Your task to perform on an android device: turn on airplane mode Image 0: 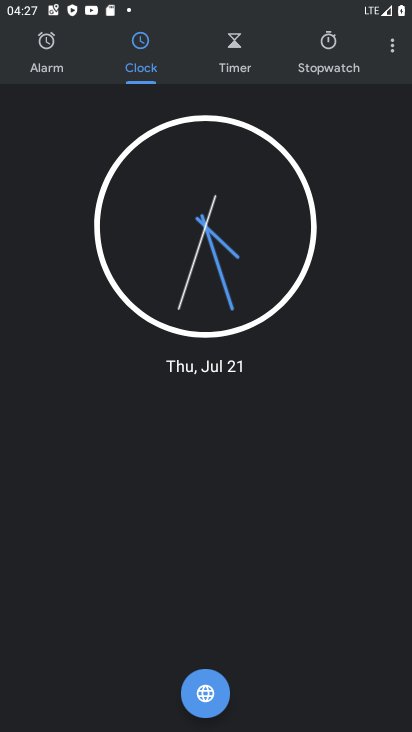
Step 0: drag from (249, 2) to (54, 499)
Your task to perform on an android device: turn on airplane mode Image 1: 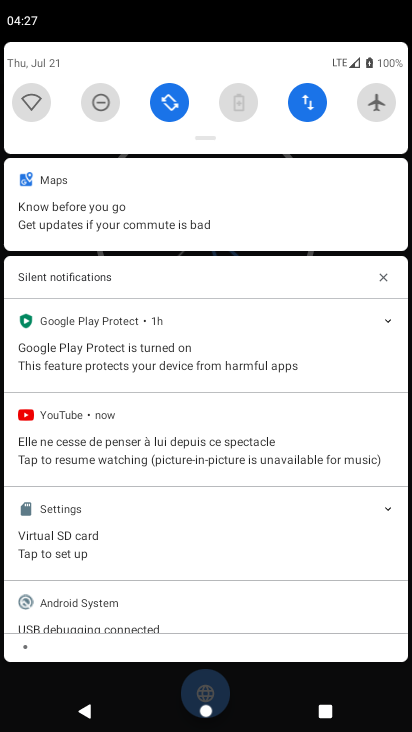
Step 1: click (385, 112)
Your task to perform on an android device: turn on airplane mode Image 2: 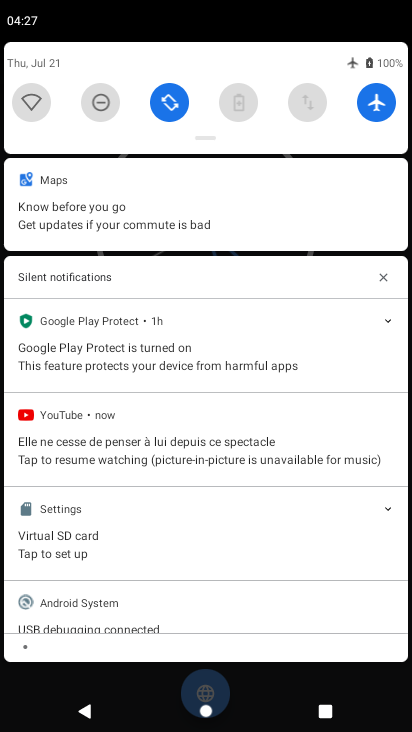
Step 2: task complete